Your task to perform on an android device: empty trash in the gmail app Image 0: 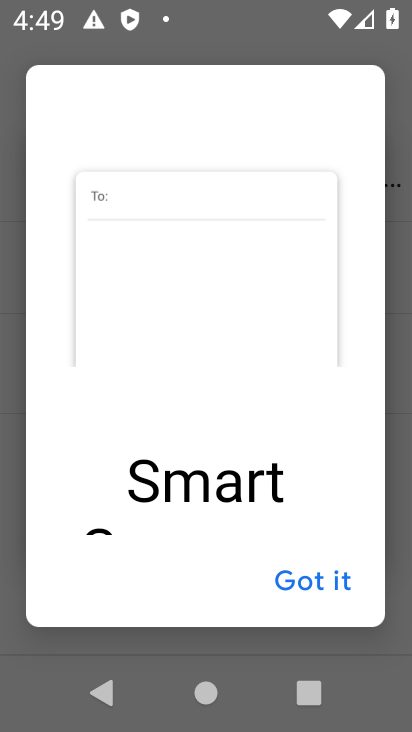
Step 0: press home button
Your task to perform on an android device: empty trash in the gmail app Image 1: 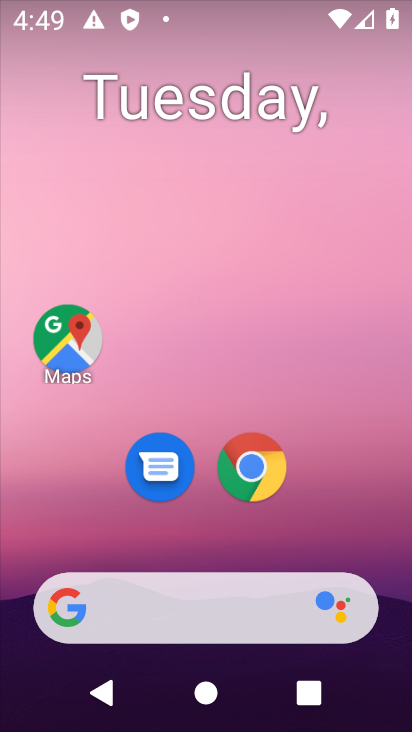
Step 1: drag from (254, 523) to (224, 0)
Your task to perform on an android device: empty trash in the gmail app Image 2: 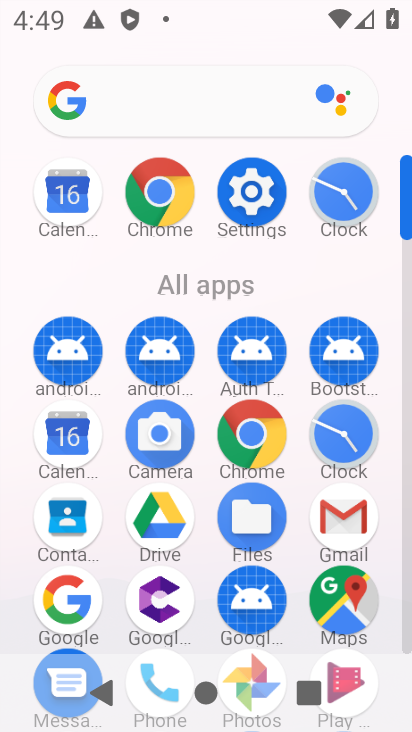
Step 2: click (347, 512)
Your task to perform on an android device: empty trash in the gmail app Image 3: 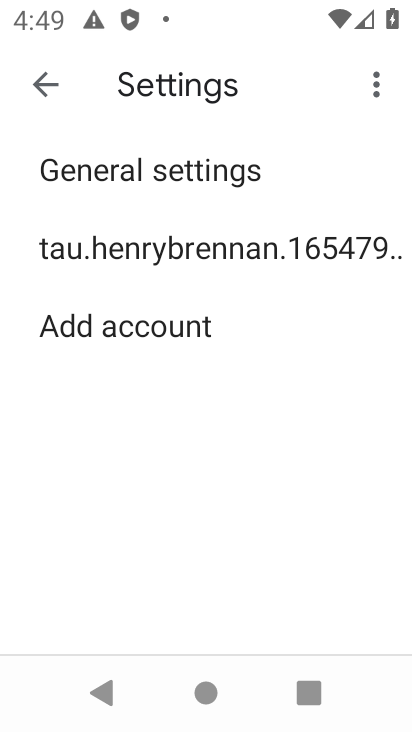
Step 3: click (35, 78)
Your task to perform on an android device: empty trash in the gmail app Image 4: 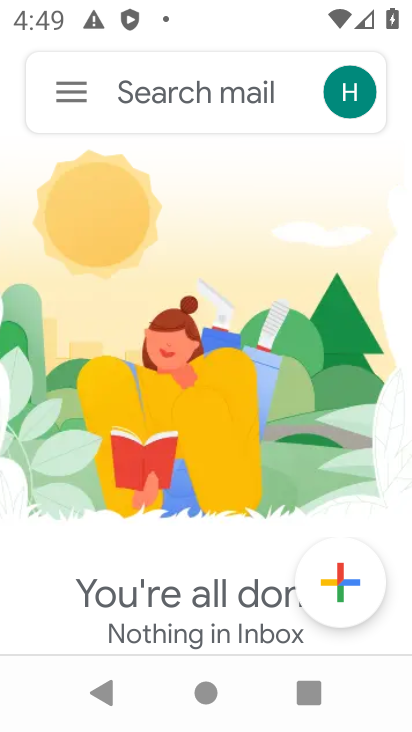
Step 4: click (75, 95)
Your task to perform on an android device: empty trash in the gmail app Image 5: 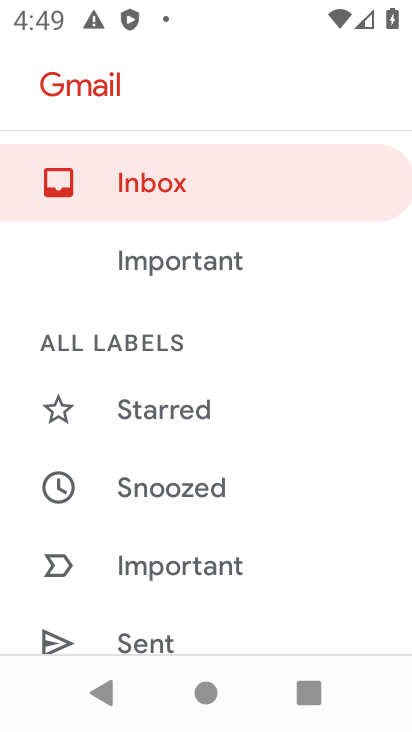
Step 5: drag from (227, 554) to (216, 157)
Your task to perform on an android device: empty trash in the gmail app Image 6: 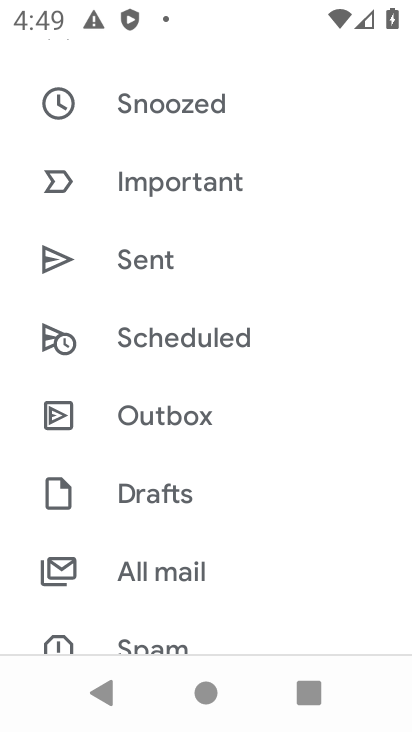
Step 6: drag from (180, 601) to (168, 194)
Your task to perform on an android device: empty trash in the gmail app Image 7: 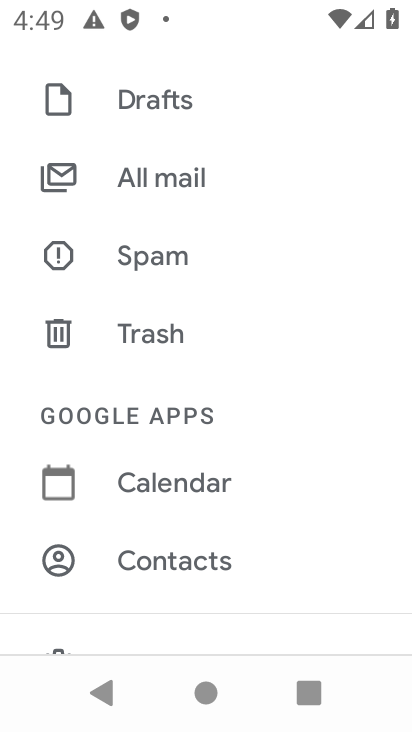
Step 7: click (154, 334)
Your task to perform on an android device: empty trash in the gmail app Image 8: 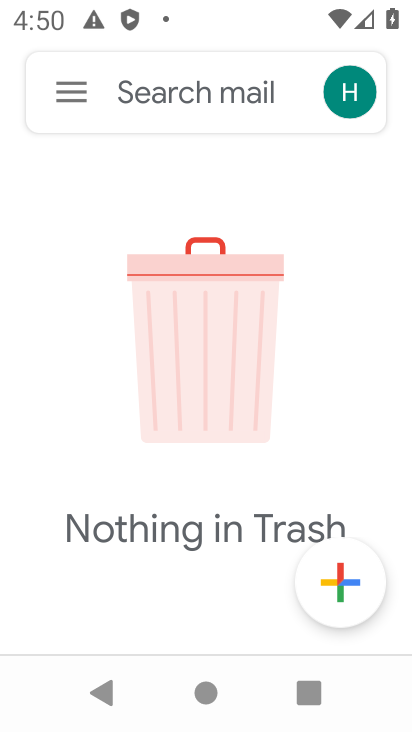
Step 8: click (59, 97)
Your task to perform on an android device: empty trash in the gmail app Image 9: 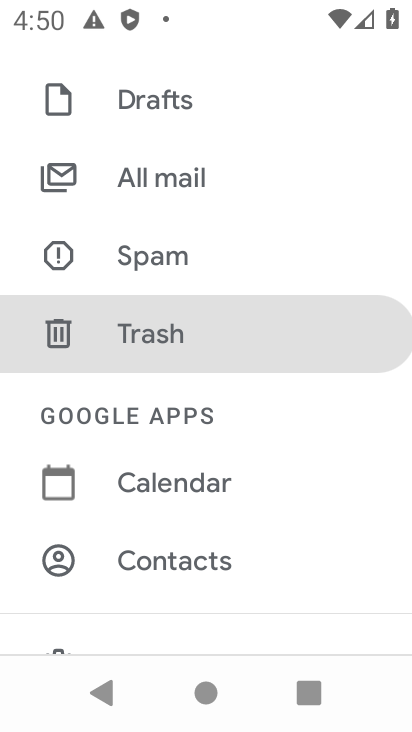
Step 9: click (172, 344)
Your task to perform on an android device: empty trash in the gmail app Image 10: 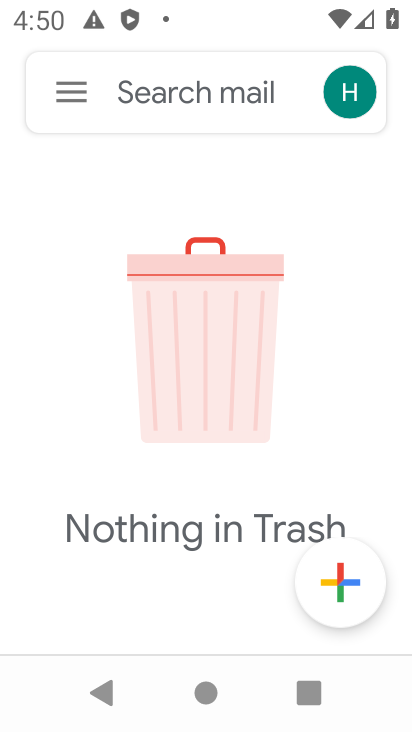
Step 10: task complete